Your task to perform on an android device: change keyboard looks Image 0: 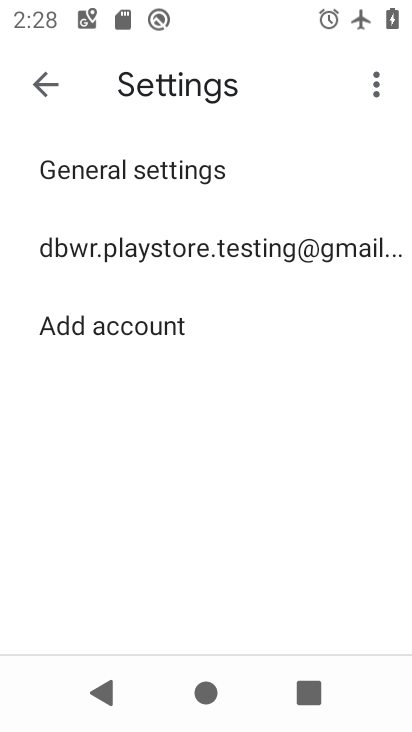
Step 0: press home button
Your task to perform on an android device: change keyboard looks Image 1: 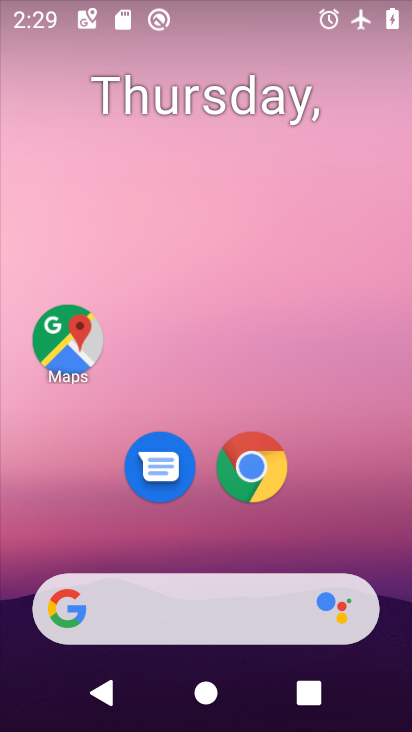
Step 1: drag from (202, 553) to (146, 57)
Your task to perform on an android device: change keyboard looks Image 2: 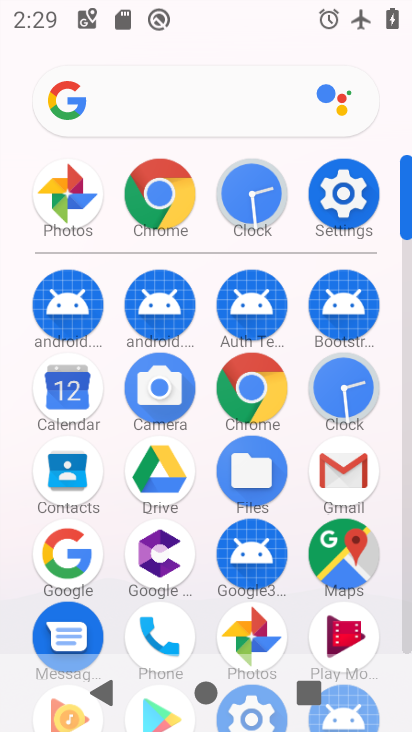
Step 2: click (325, 197)
Your task to perform on an android device: change keyboard looks Image 3: 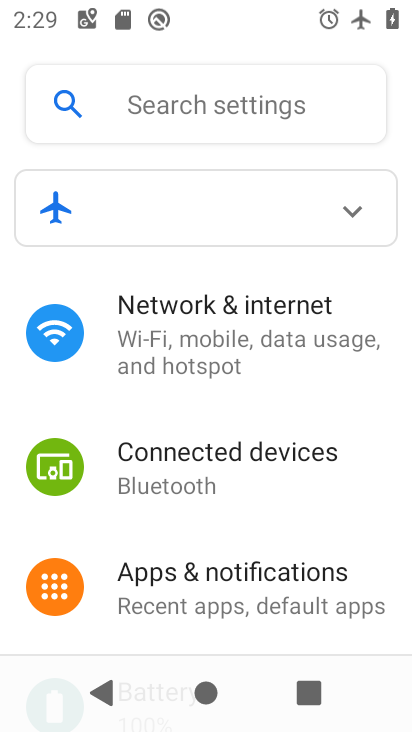
Step 3: drag from (224, 506) to (112, 1)
Your task to perform on an android device: change keyboard looks Image 4: 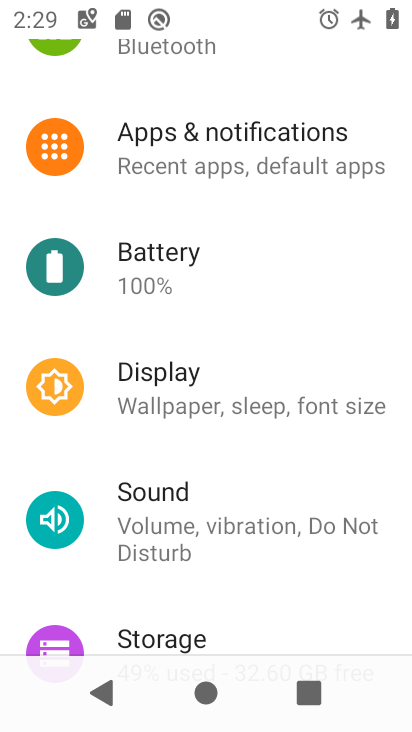
Step 4: drag from (225, 517) to (151, 20)
Your task to perform on an android device: change keyboard looks Image 5: 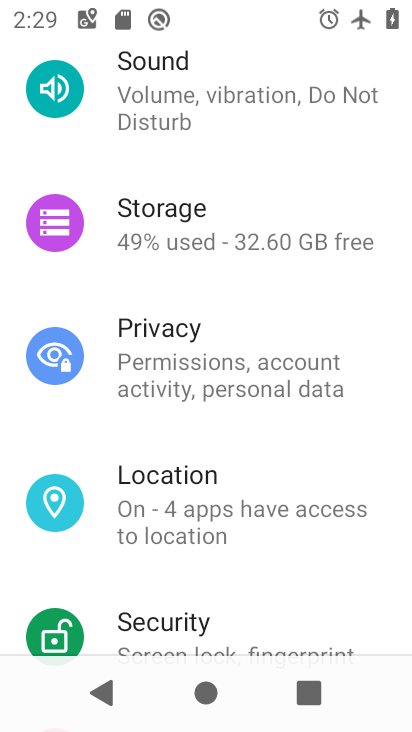
Step 5: drag from (208, 574) to (173, 125)
Your task to perform on an android device: change keyboard looks Image 6: 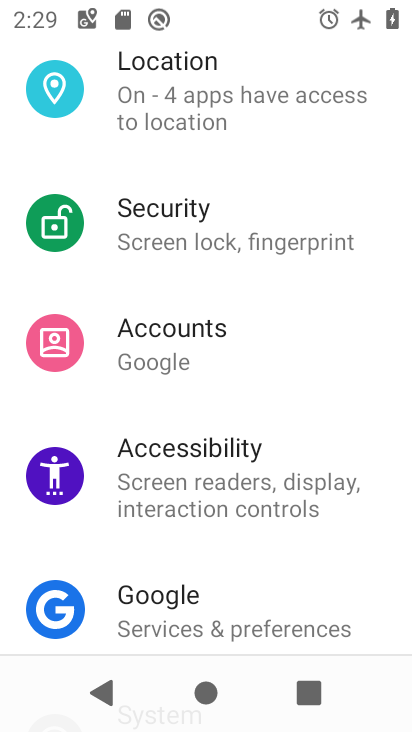
Step 6: drag from (185, 609) to (102, 117)
Your task to perform on an android device: change keyboard looks Image 7: 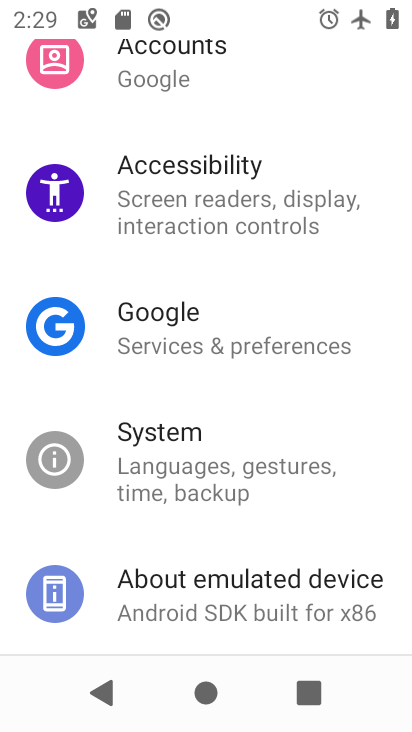
Step 7: click (145, 448)
Your task to perform on an android device: change keyboard looks Image 8: 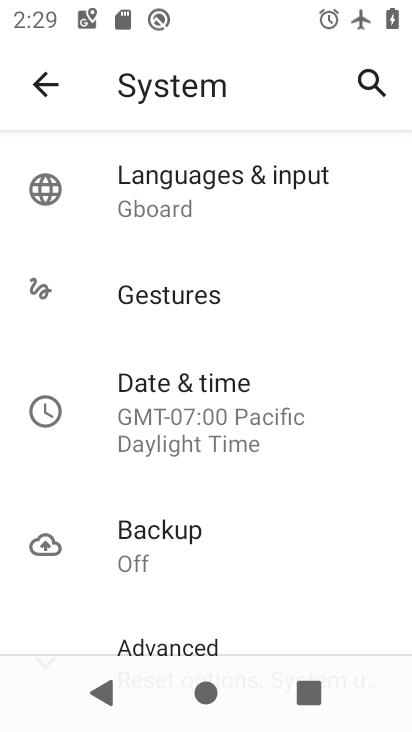
Step 8: click (196, 192)
Your task to perform on an android device: change keyboard looks Image 9: 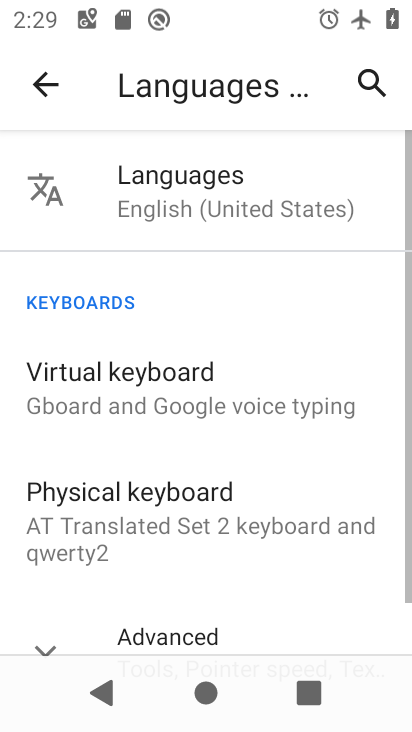
Step 9: click (175, 373)
Your task to perform on an android device: change keyboard looks Image 10: 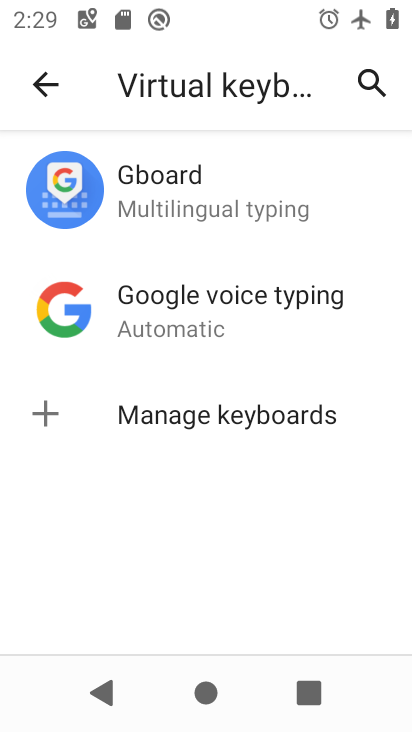
Step 10: click (169, 227)
Your task to perform on an android device: change keyboard looks Image 11: 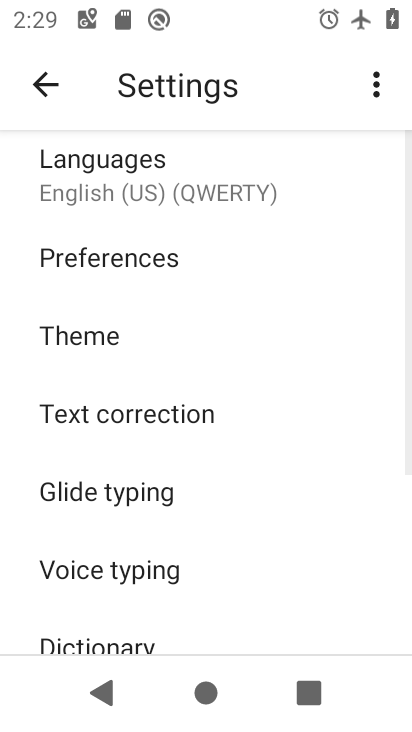
Step 11: click (95, 342)
Your task to perform on an android device: change keyboard looks Image 12: 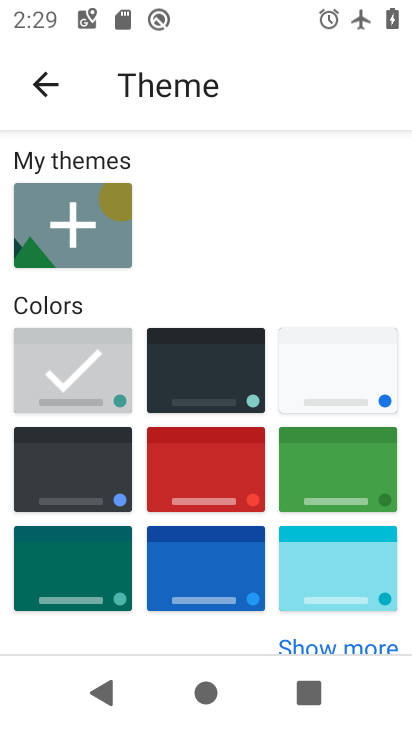
Step 12: click (195, 453)
Your task to perform on an android device: change keyboard looks Image 13: 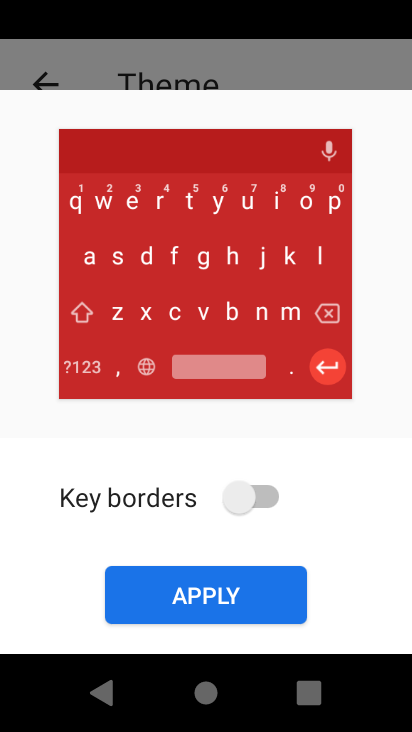
Step 13: click (223, 600)
Your task to perform on an android device: change keyboard looks Image 14: 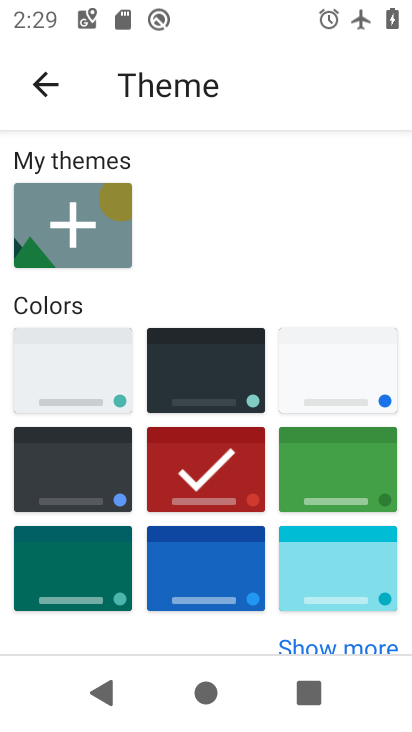
Step 14: task complete